Your task to perform on an android device: toggle pop-ups in chrome Image 0: 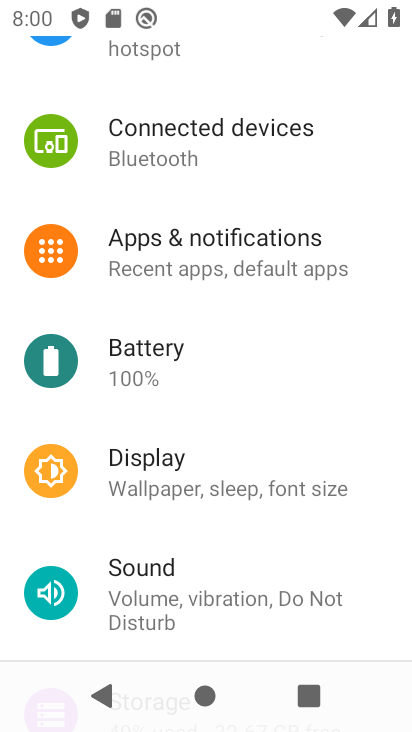
Step 0: press back button
Your task to perform on an android device: toggle pop-ups in chrome Image 1: 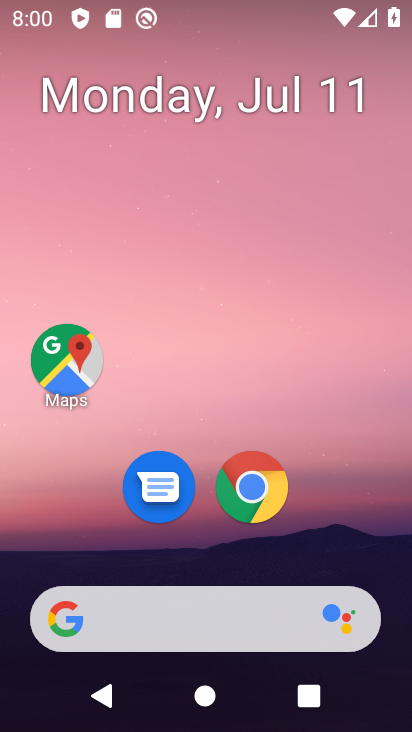
Step 1: click (240, 487)
Your task to perform on an android device: toggle pop-ups in chrome Image 2: 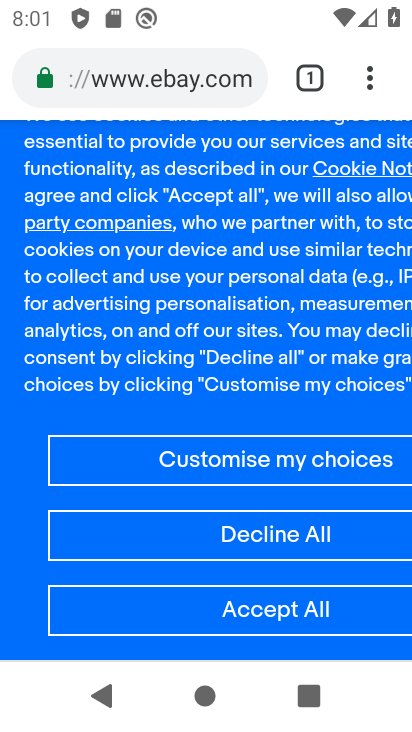
Step 2: drag from (369, 89) to (118, 574)
Your task to perform on an android device: toggle pop-ups in chrome Image 3: 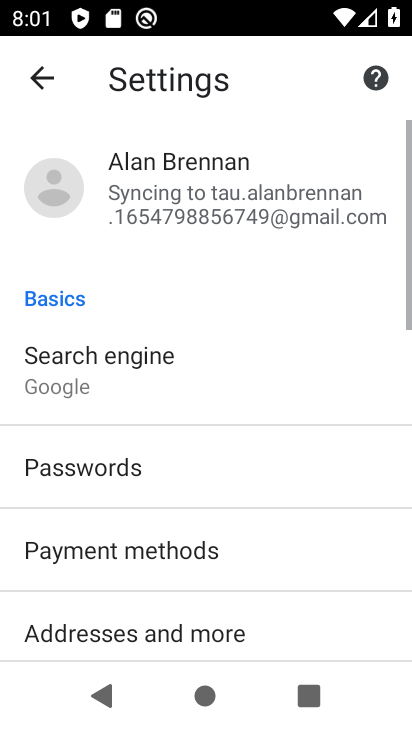
Step 3: drag from (106, 619) to (224, 136)
Your task to perform on an android device: toggle pop-ups in chrome Image 4: 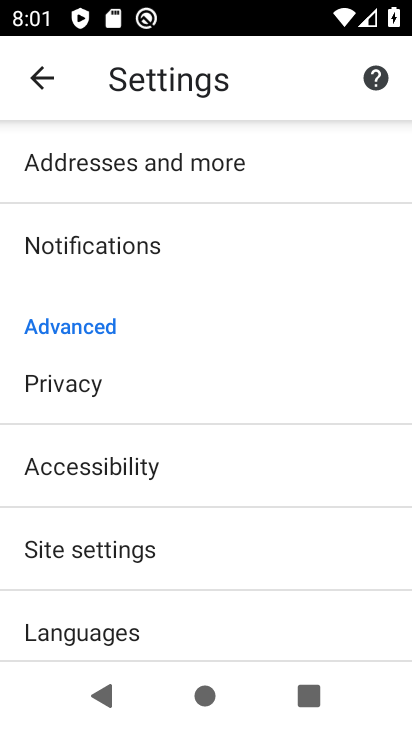
Step 4: click (89, 547)
Your task to perform on an android device: toggle pop-ups in chrome Image 5: 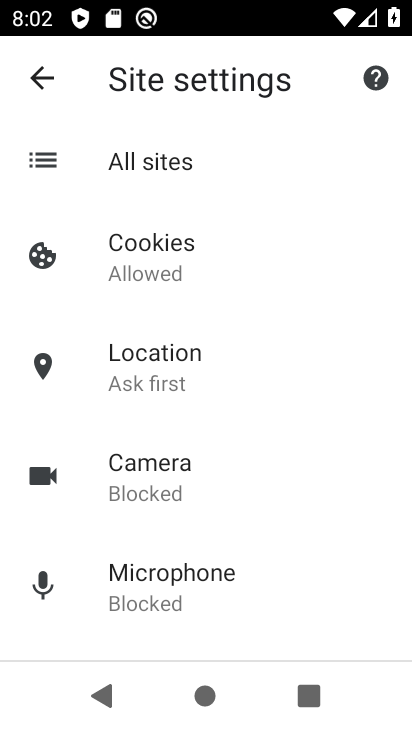
Step 5: drag from (144, 587) to (210, 110)
Your task to perform on an android device: toggle pop-ups in chrome Image 6: 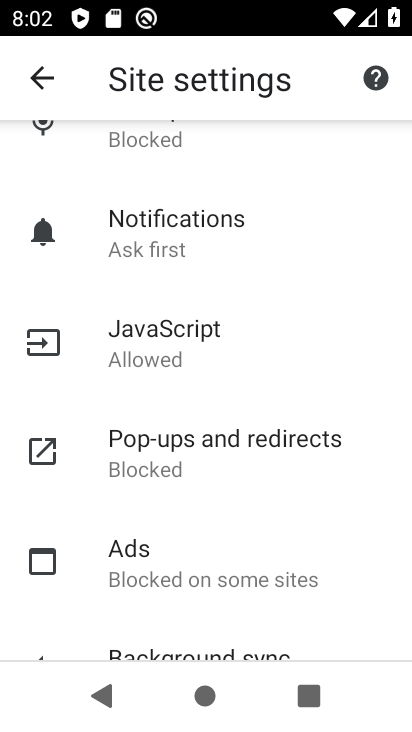
Step 6: click (195, 442)
Your task to perform on an android device: toggle pop-ups in chrome Image 7: 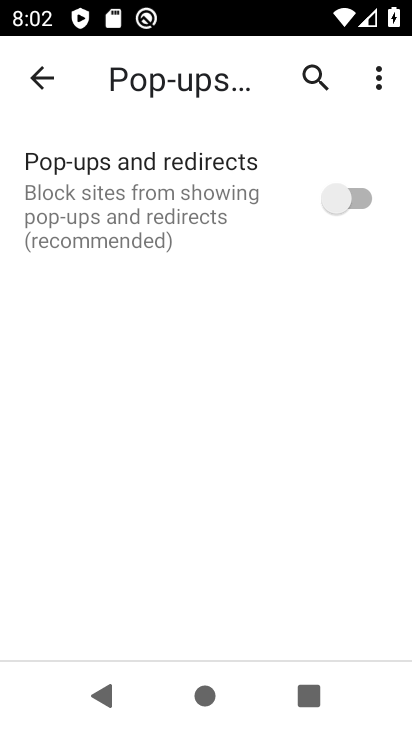
Step 7: click (355, 196)
Your task to perform on an android device: toggle pop-ups in chrome Image 8: 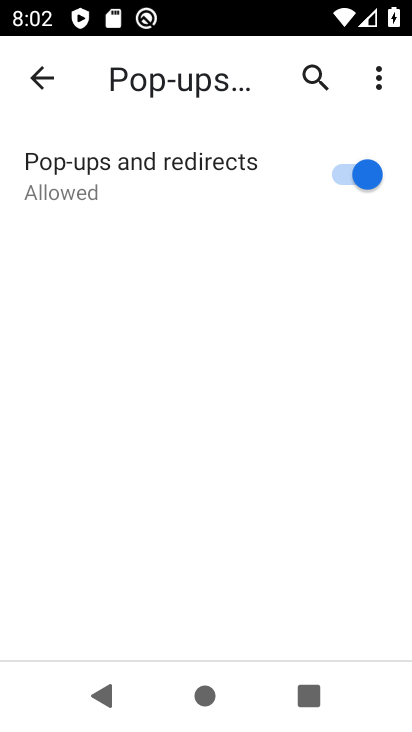
Step 8: task complete